Your task to perform on an android device: Go to notification settings Image 0: 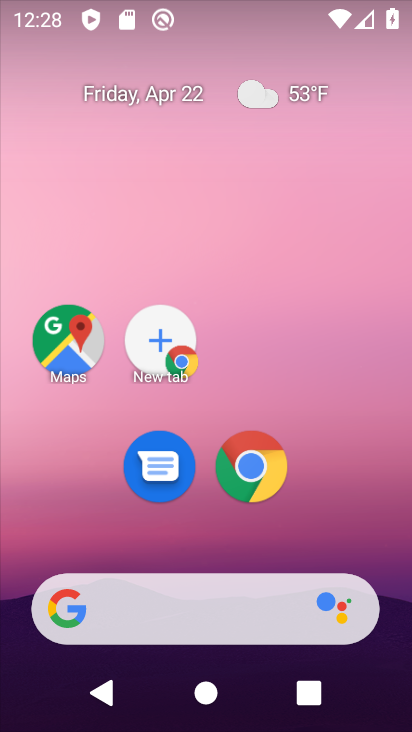
Step 0: drag from (377, 531) to (254, 40)
Your task to perform on an android device: Go to notification settings Image 1: 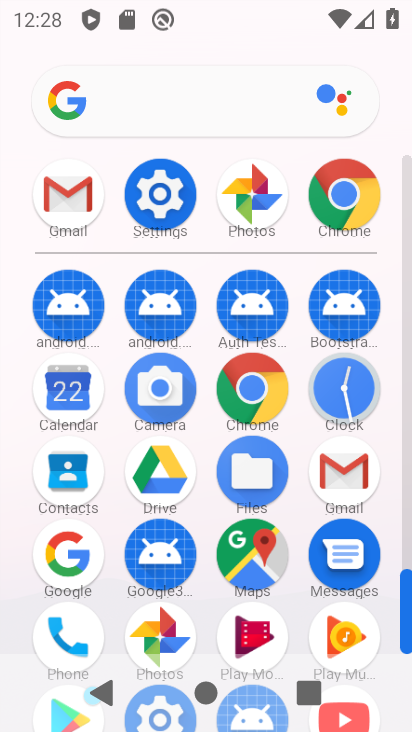
Step 1: drag from (4, 572) to (1, 281)
Your task to perform on an android device: Go to notification settings Image 2: 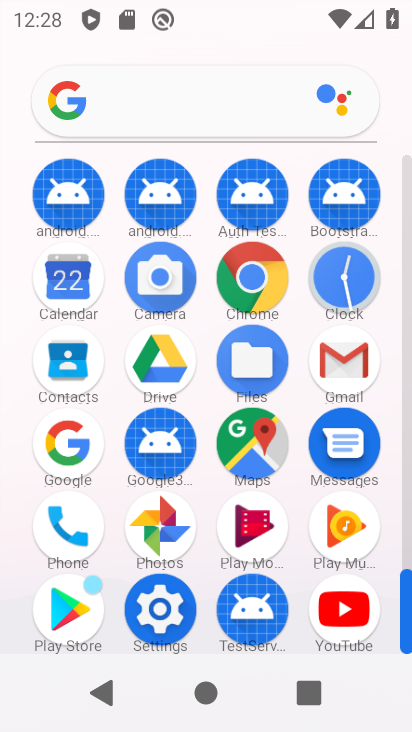
Step 2: click (155, 599)
Your task to perform on an android device: Go to notification settings Image 3: 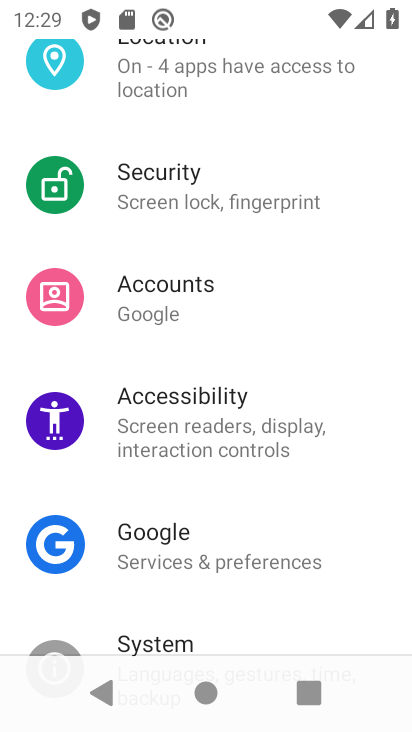
Step 3: drag from (261, 295) to (282, 567)
Your task to perform on an android device: Go to notification settings Image 4: 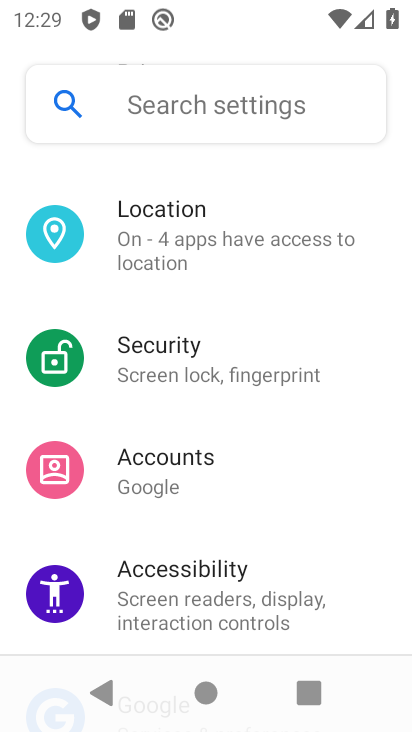
Step 4: drag from (282, 267) to (312, 549)
Your task to perform on an android device: Go to notification settings Image 5: 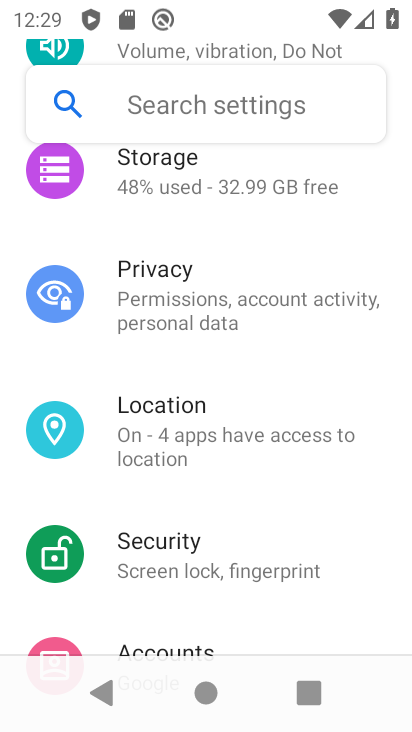
Step 5: drag from (276, 313) to (278, 571)
Your task to perform on an android device: Go to notification settings Image 6: 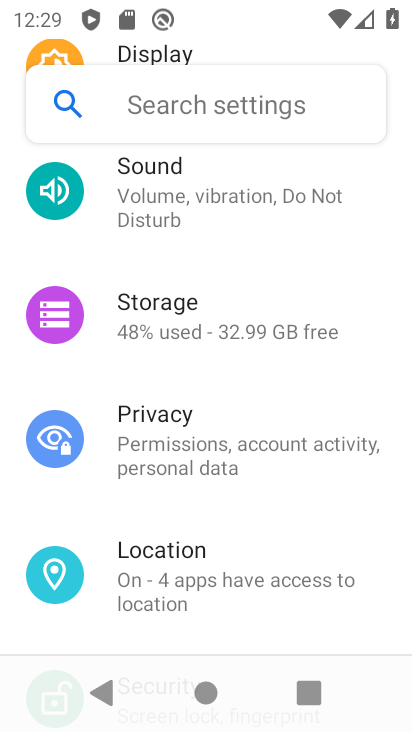
Step 6: drag from (273, 278) to (288, 584)
Your task to perform on an android device: Go to notification settings Image 7: 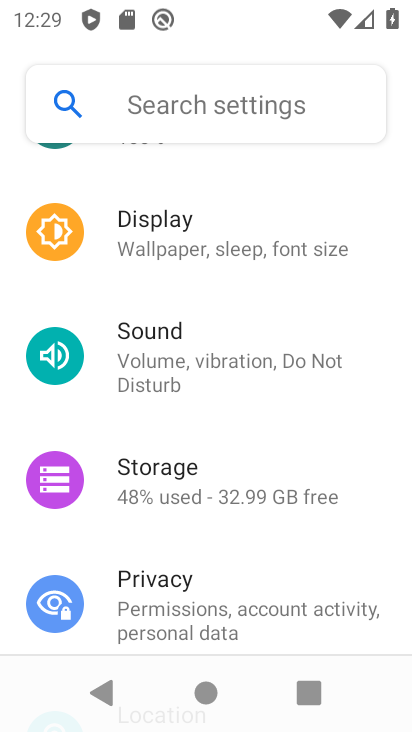
Step 7: drag from (289, 277) to (300, 588)
Your task to perform on an android device: Go to notification settings Image 8: 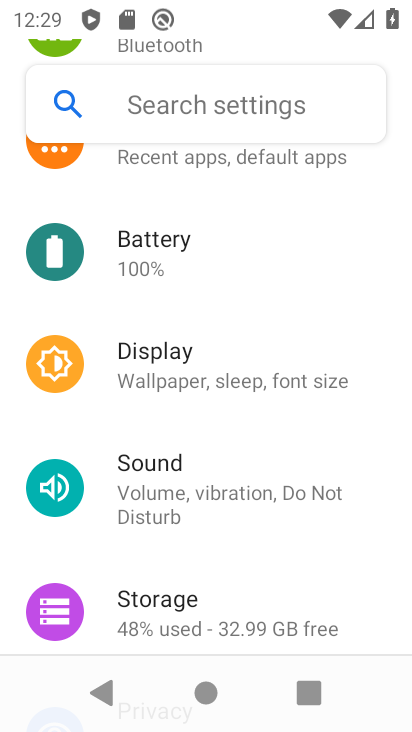
Step 8: drag from (259, 329) to (259, 592)
Your task to perform on an android device: Go to notification settings Image 9: 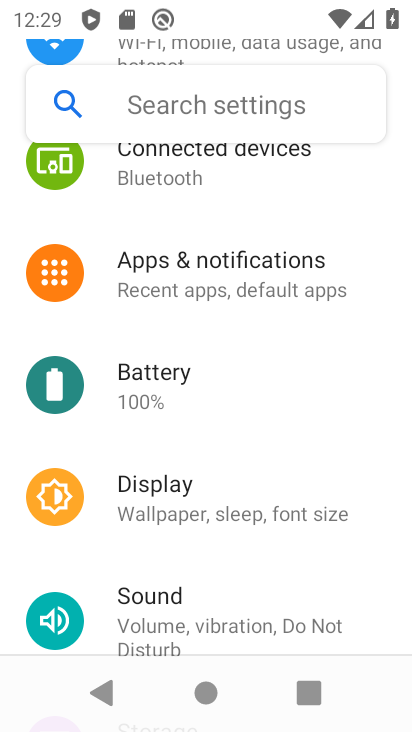
Step 9: click (190, 270)
Your task to perform on an android device: Go to notification settings Image 10: 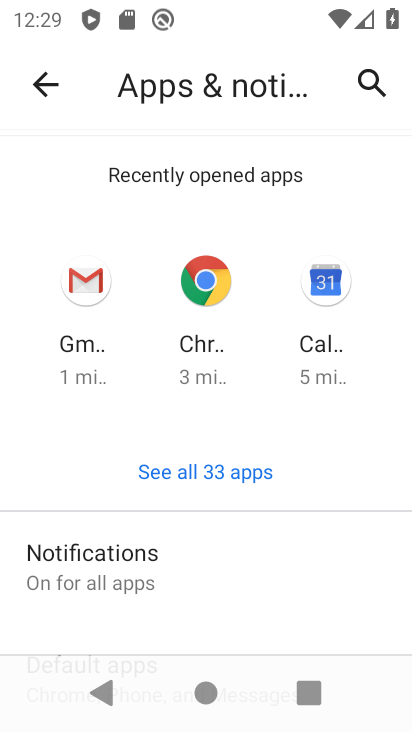
Step 10: click (189, 548)
Your task to perform on an android device: Go to notification settings Image 11: 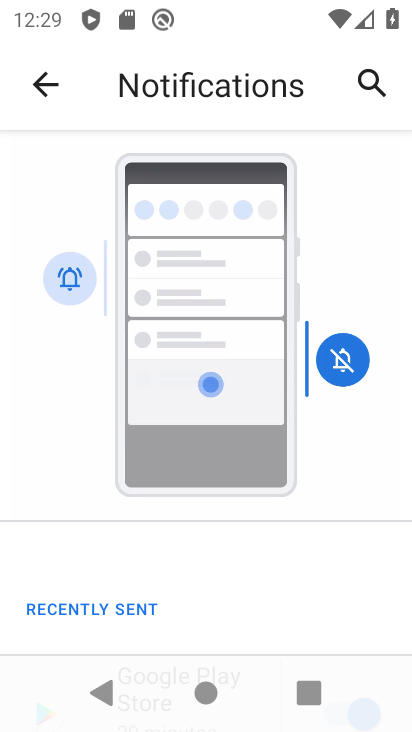
Step 11: drag from (191, 590) to (165, 185)
Your task to perform on an android device: Go to notification settings Image 12: 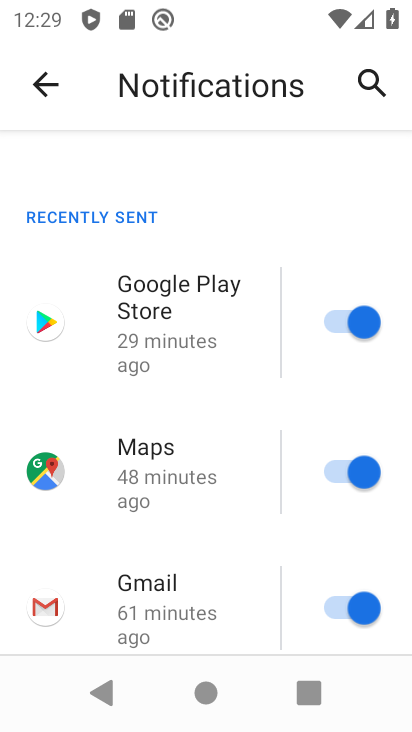
Step 12: drag from (230, 502) to (225, 263)
Your task to perform on an android device: Go to notification settings Image 13: 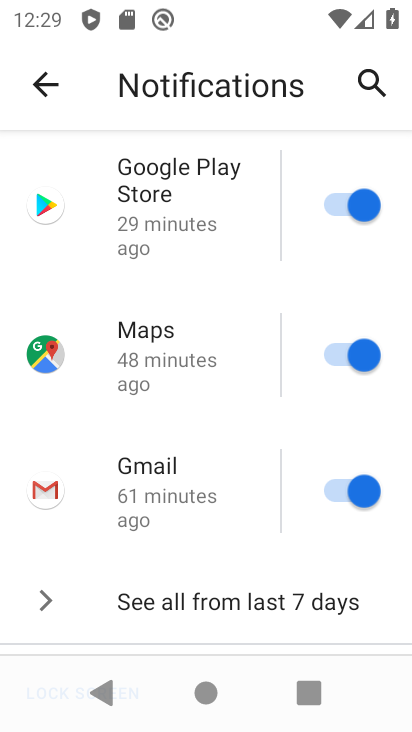
Step 13: drag from (218, 573) to (222, 186)
Your task to perform on an android device: Go to notification settings Image 14: 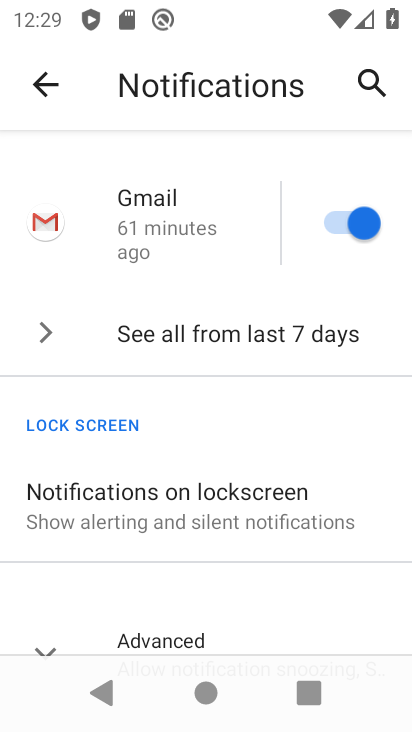
Step 14: drag from (188, 529) to (208, 226)
Your task to perform on an android device: Go to notification settings Image 15: 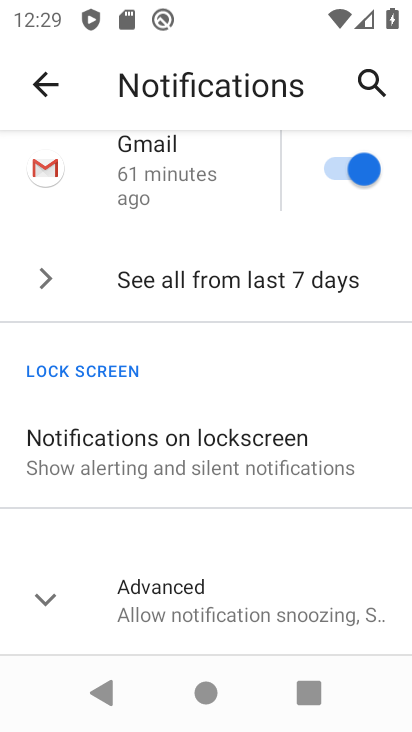
Step 15: click (38, 605)
Your task to perform on an android device: Go to notification settings Image 16: 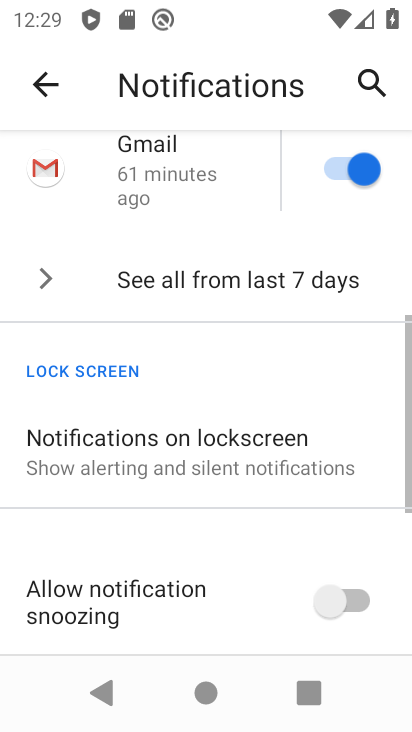
Step 16: drag from (235, 519) to (228, 215)
Your task to perform on an android device: Go to notification settings Image 17: 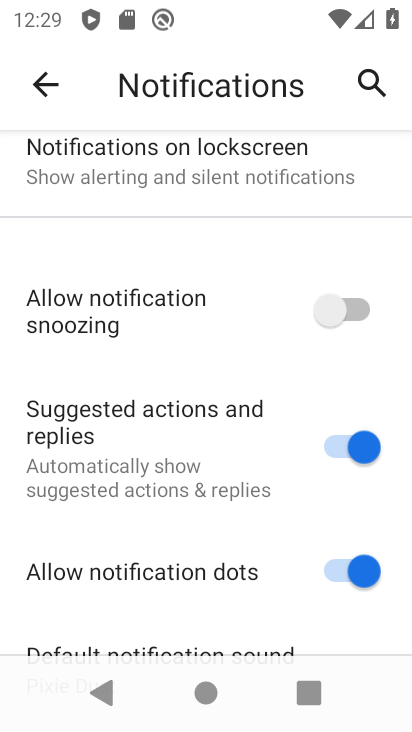
Step 17: drag from (232, 551) to (244, 218)
Your task to perform on an android device: Go to notification settings Image 18: 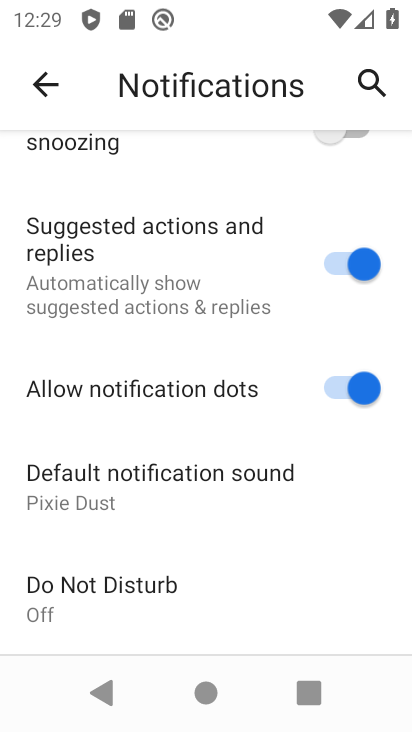
Step 18: drag from (287, 203) to (262, 502)
Your task to perform on an android device: Go to notification settings Image 19: 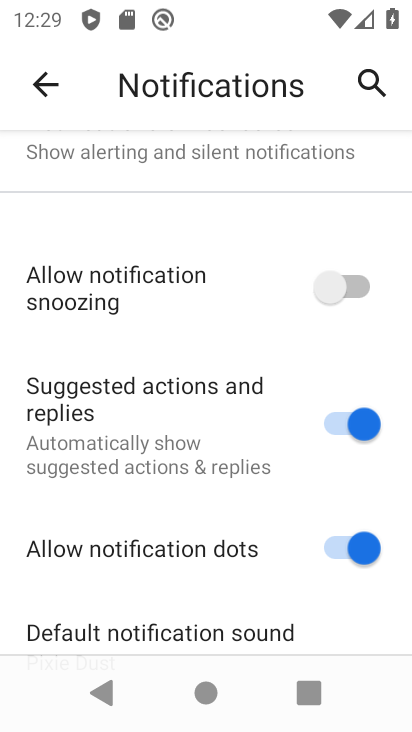
Step 19: click (349, 271)
Your task to perform on an android device: Go to notification settings Image 20: 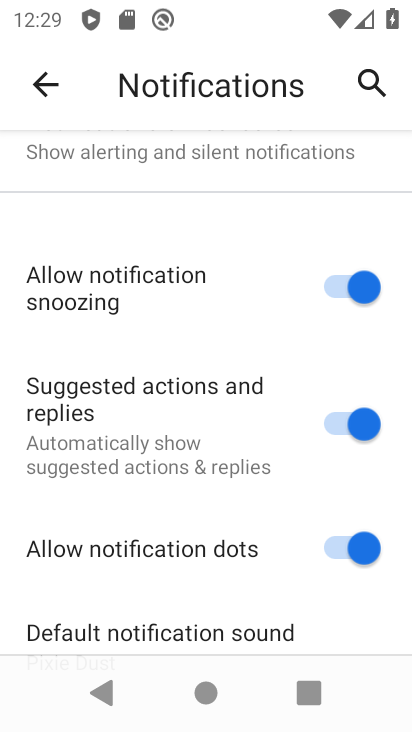
Step 20: task complete